Your task to perform on an android device: Open my contact list Image 0: 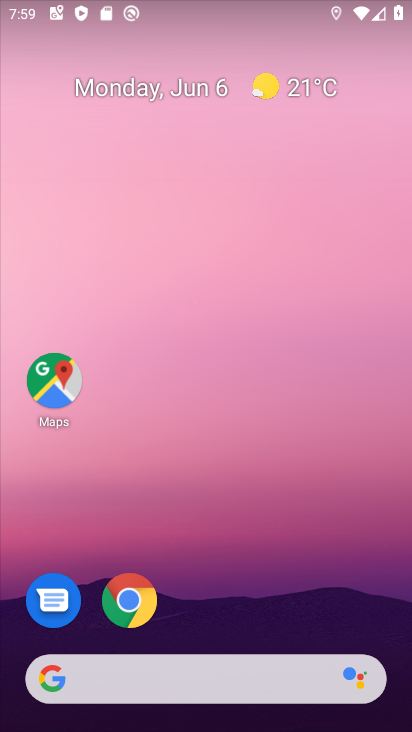
Step 0: drag from (381, 624) to (305, 82)
Your task to perform on an android device: Open my contact list Image 1: 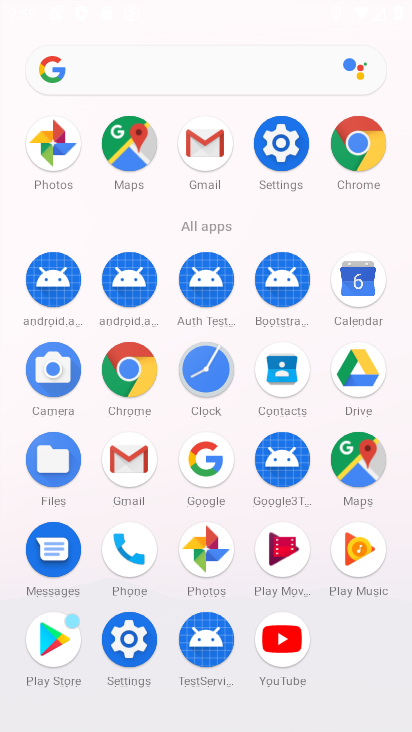
Step 1: click (278, 368)
Your task to perform on an android device: Open my contact list Image 2: 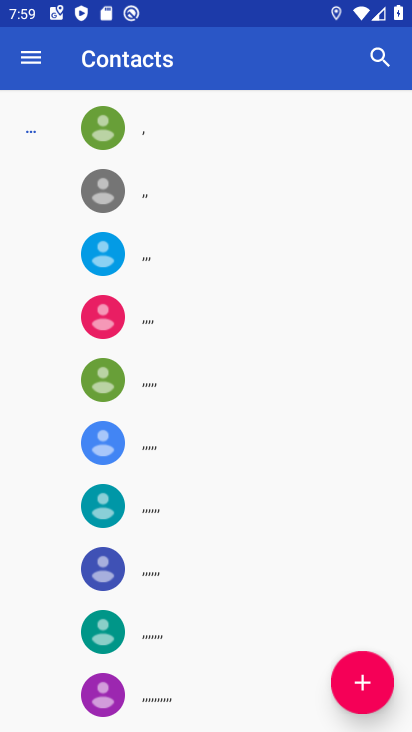
Step 2: task complete